Your task to perform on an android device: toggle notification dots Image 0: 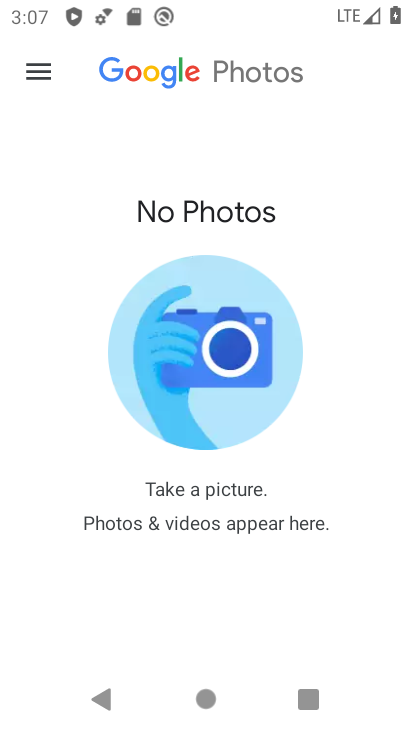
Step 0: press home button
Your task to perform on an android device: toggle notification dots Image 1: 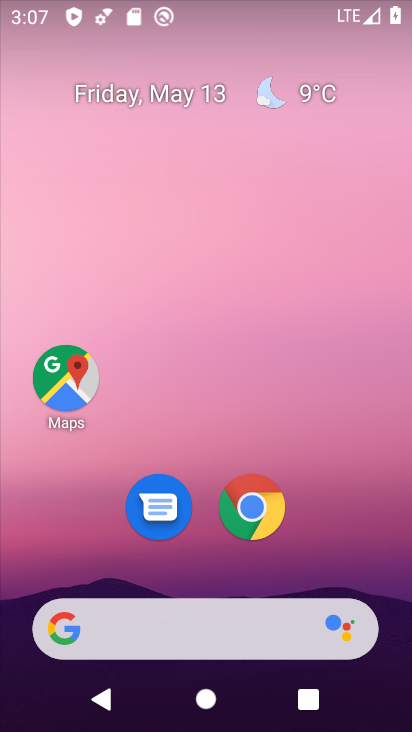
Step 1: drag from (242, 705) to (235, 174)
Your task to perform on an android device: toggle notification dots Image 2: 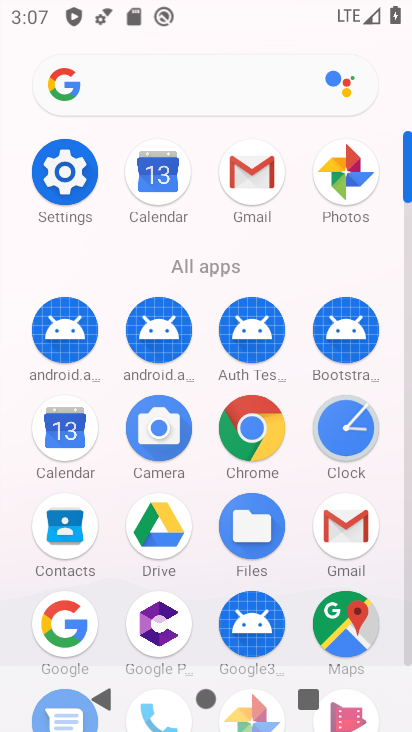
Step 2: click (59, 176)
Your task to perform on an android device: toggle notification dots Image 3: 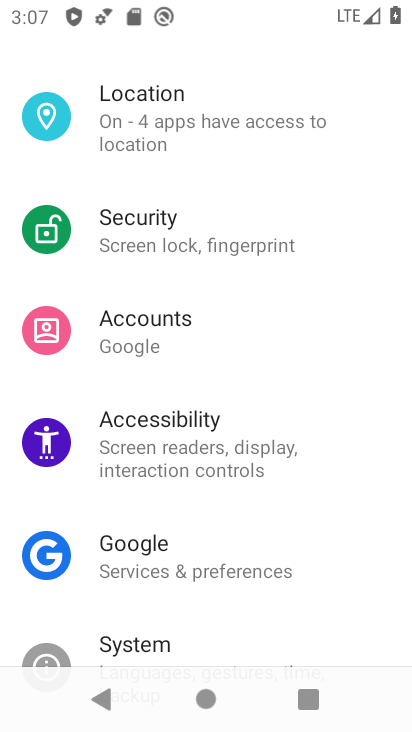
Step 3: drag from (289, 180) to (173, 699)
Your task to perform on an android device: toggle notification dots Image 4: 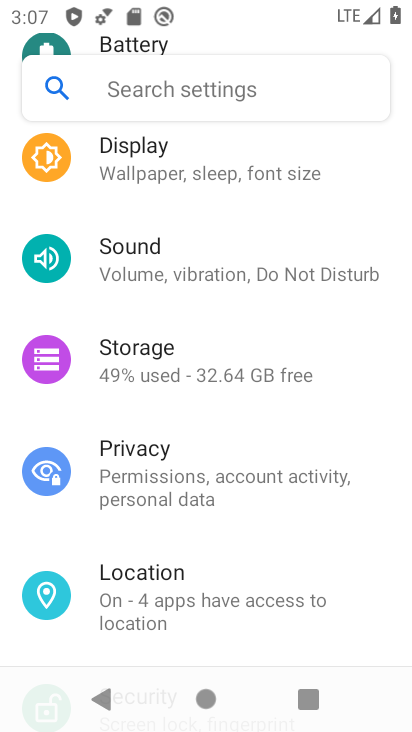
Step 4: drag from (293, 208) to (236, 625)
Your task to perform on an android device: toggle notification dots Image 5: 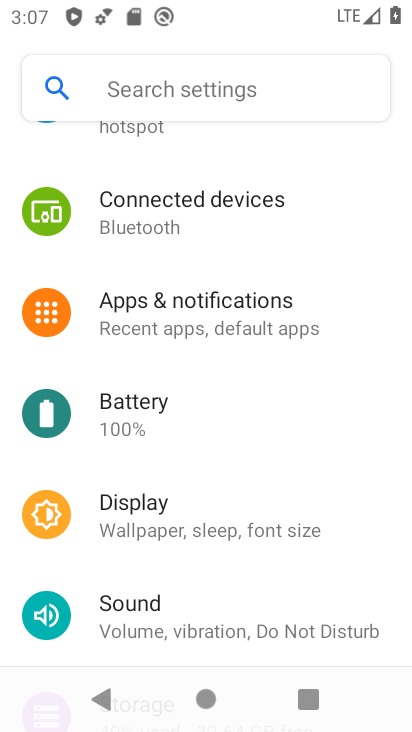
Step 5: drag from (320, 225) to (233, 661)
Your task to perform on an android device: toggle notification dots Image 6: 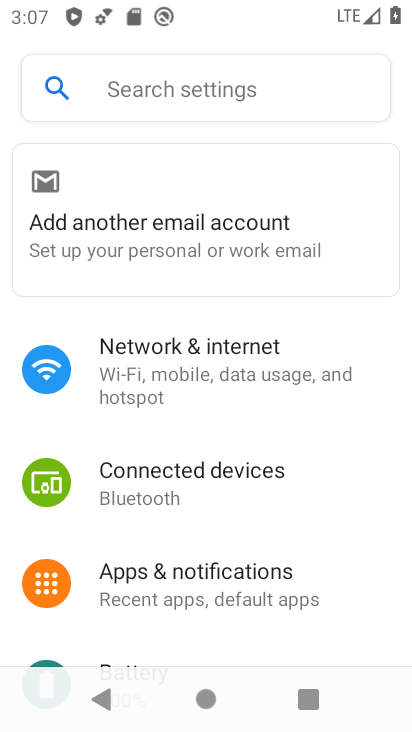
Step 6: click (230, 586)
Your task to perform on an android device: toggle notification dots Image 7: 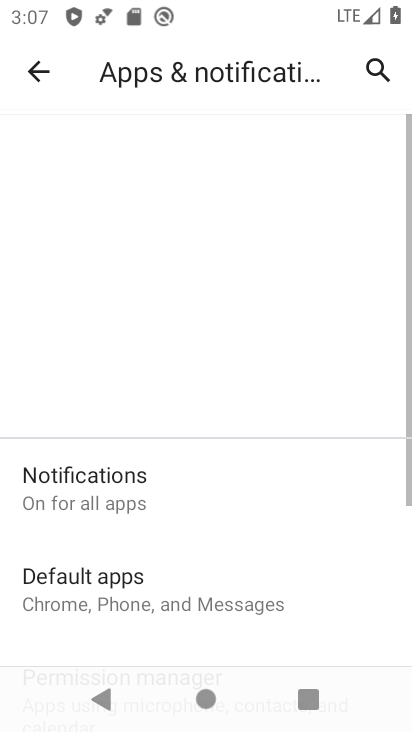
Step 7: drag from (263, 624) to (260, 155)
Your task to perform on an android device: toggle notification dots Image 8: 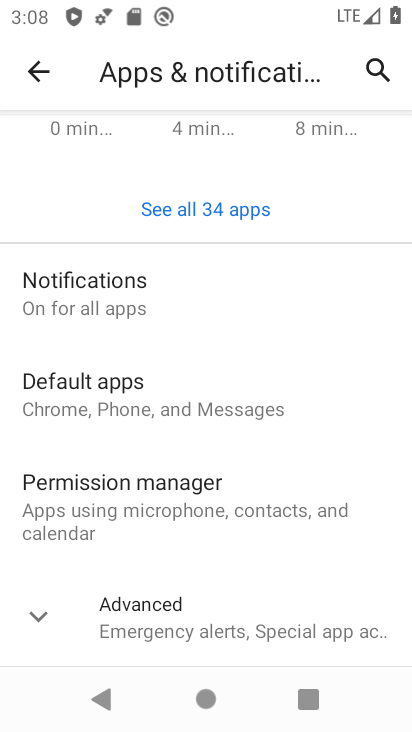
Step 8: click (300, 634)
Your task to perform on an android device: toggle notification dots Image 9: 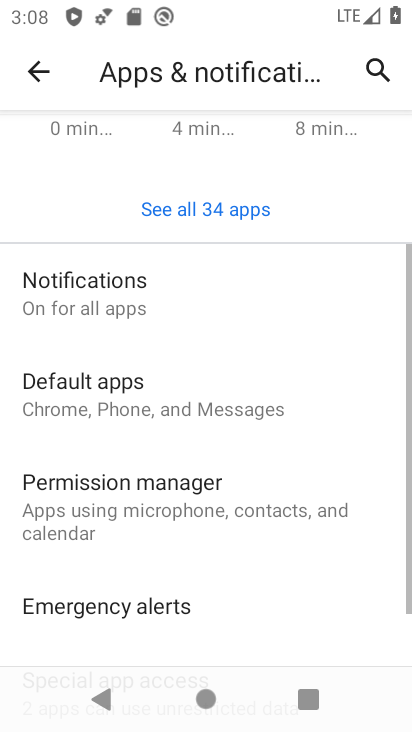
Step 9: drag from (307, 618) to (295, 274)
Your task to perform on an android device: toggle notification dots Image 10: 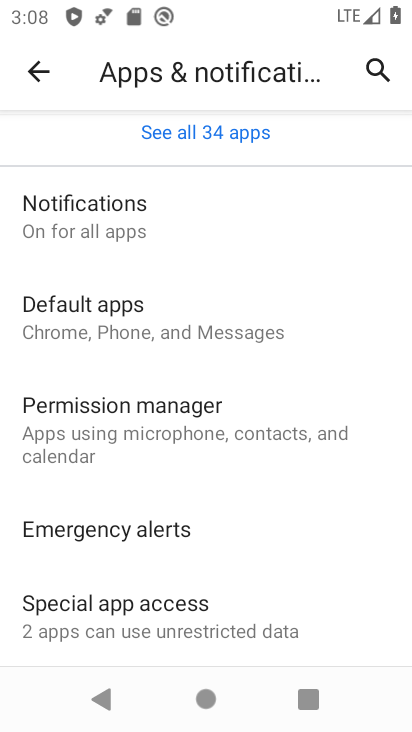
Step 10: drag from (249, 621) to (265, 412)
Your task to perform on an android device: toggle notification dots Image 11: 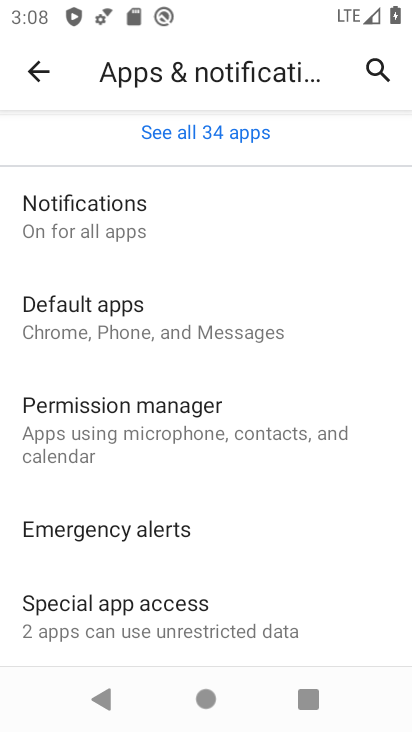
Step 11: click (201, 225)
Your task to perform on an android device: toggle notification dots Image 12: 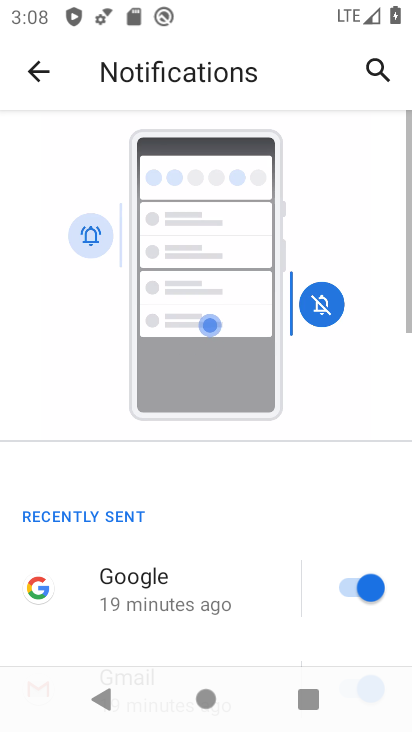
Step 12: drag from (274, 592) to (277, 147)
Your task to perform on an android device: toggle notification dots Image 13: 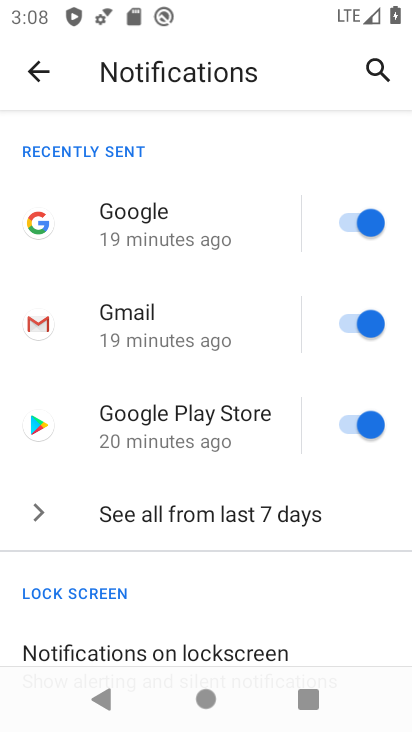
Step 13: drag from (265, 537) to (245, 362)
Your task to perform on an android device: toggle notification dots Image 14: 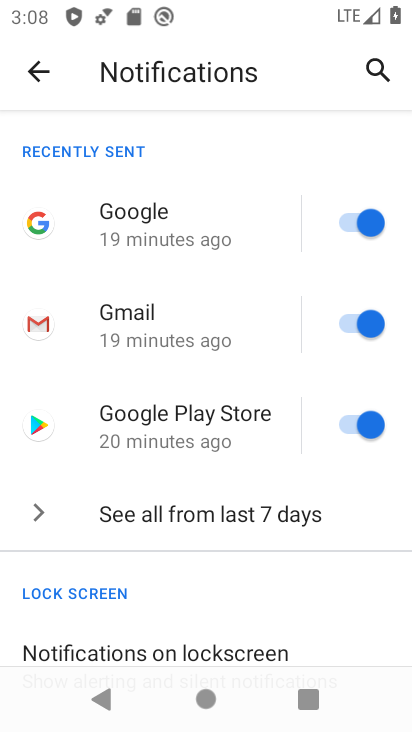
Step 14: click (196, 23)
Your task to perform on an android device: toggle notification dots Image 15: 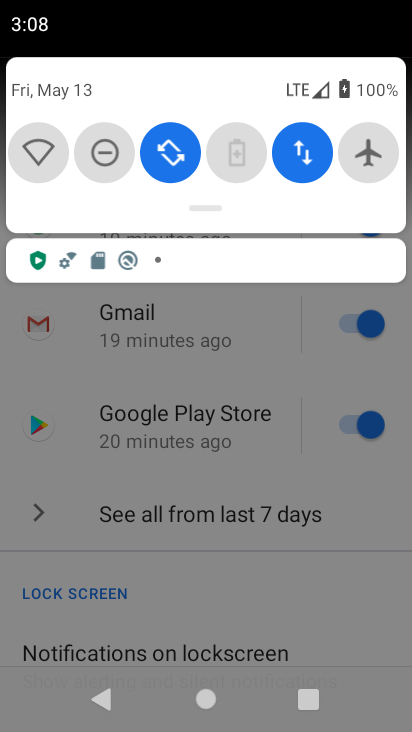
Step 15: drag from (180, 637) to (153, 125)
Your task to perform on an android device: toggle notification dots Image 16: 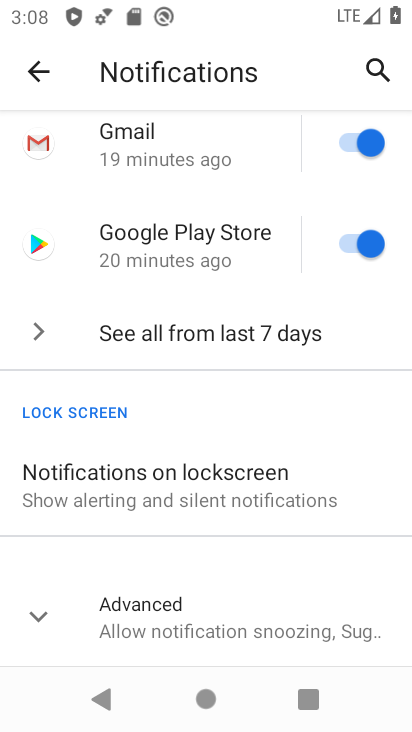
Step 16: click (272, 626)
Your task to perform on an android device: toggle notification dots Image 17: 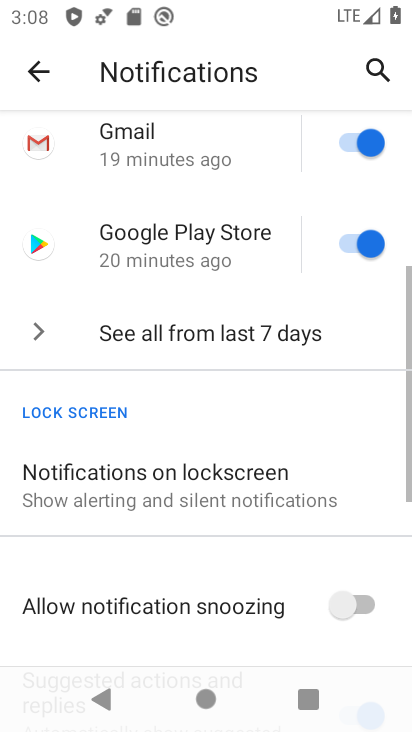
Step 17: drag from (251, 632) to (201, 176)
Your task to perform on an android device: toggle notification dots Image 18: 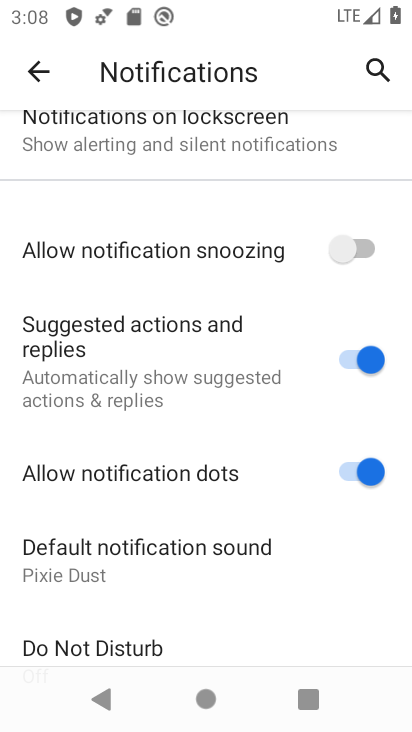
Step 18: click (366, 482)
Your task to perform on an android device: toggle notification dots Image 19: 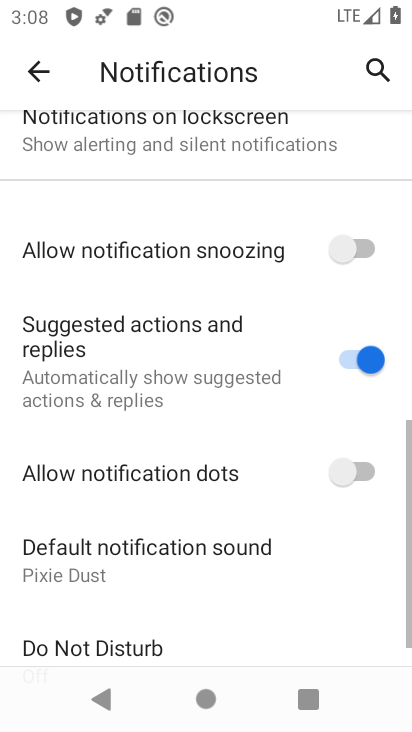
Step 19: task complete